Your task to perform on an android device: Go to display settings Image 0: 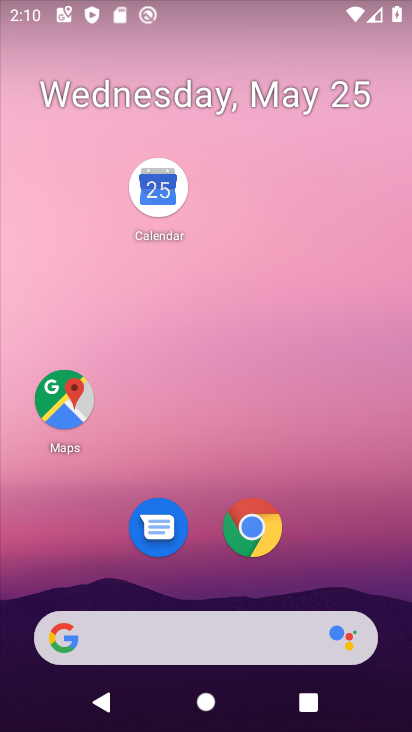
Step 0: drag from (315, 557) to (348, 99)
Your task to perform on an android device: Go to display settings Image 1: 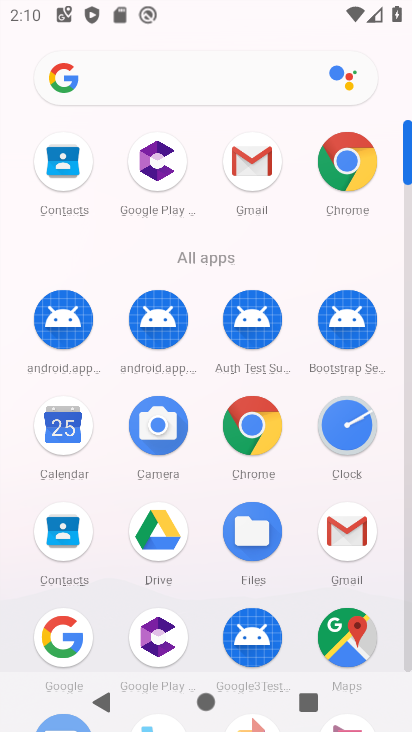
Step 1: drag from (171, 560) to (189, 129)
Your task to perform on an android device: Go to display settings Image 2: 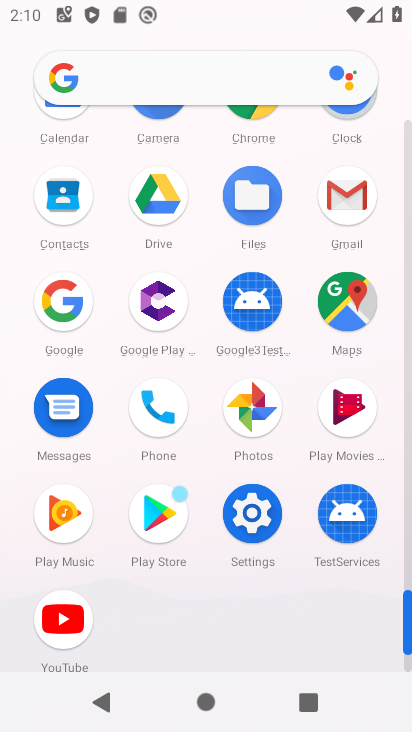
Step 2: drag from (249, 516) to (81, 207)
Your task to perform on an android device: Go to display settings Image 3: 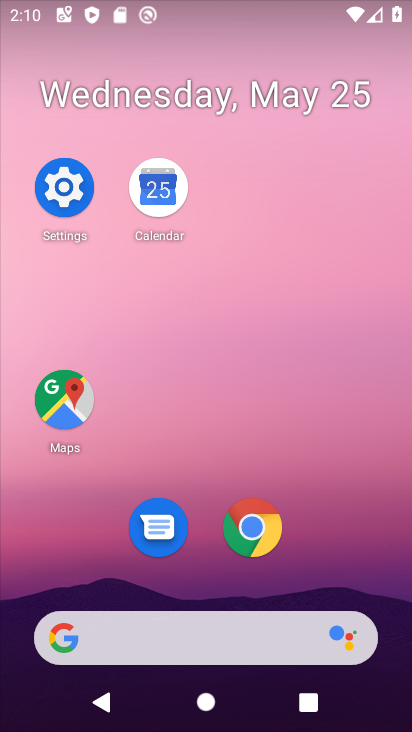
Step 3: click (71, 195)
Your task to perform on an android device: Go to display settings Image 4: 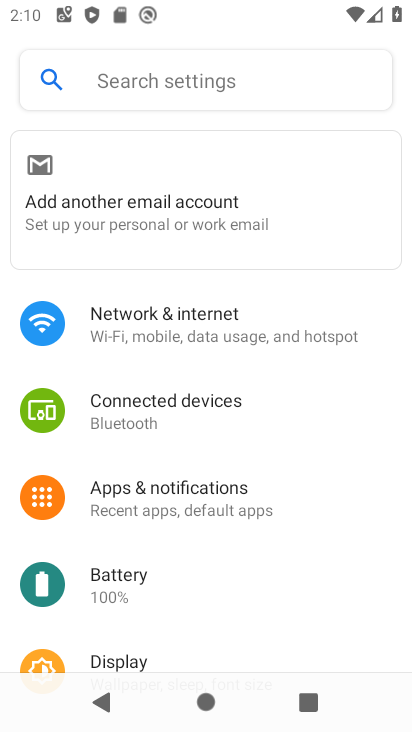
Step 4: drag from (247, 578) to (292, 165)
Your task to perform on an android device: Go to display settings Image 5: 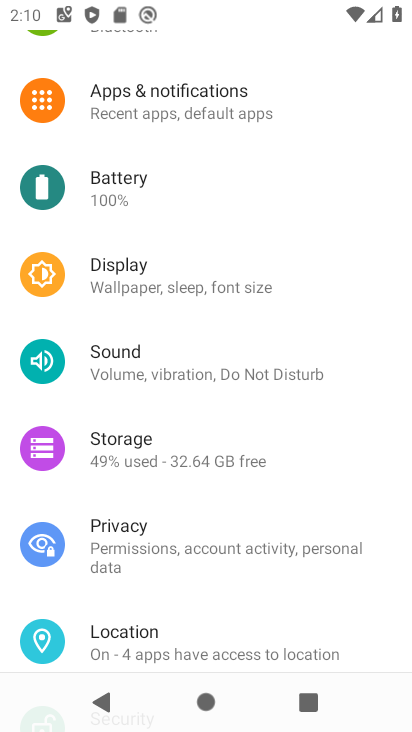
Step 5: click (174, 271)
Your task to perform on an android device: Go to display settings Image 6: 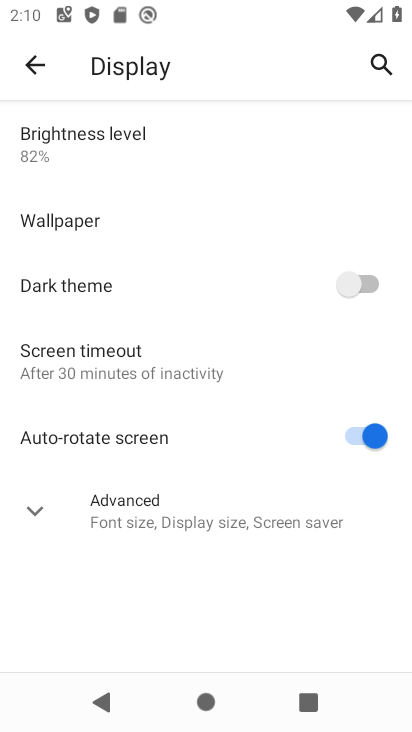
Step 6: task complete